Your task to perform on an android device: Search for vegetarian restaurants on Maps Image 0: 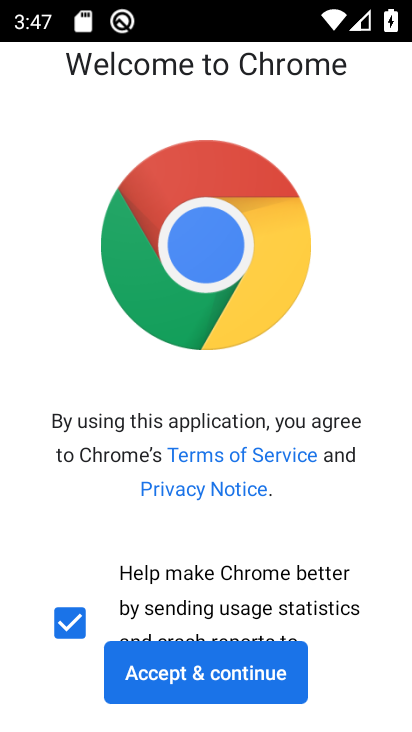
Step 0: click (200, 666)
Your task to perform on an android device: Search for vegetarian restaurants on Maps Image 1: 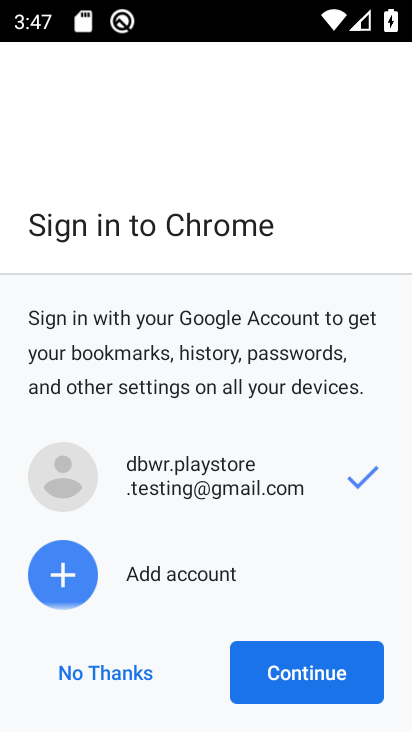
Step 1: click (355, 673)
Your task to perform on an android device: Search for vegetarian restaurants on Maps Image 2: 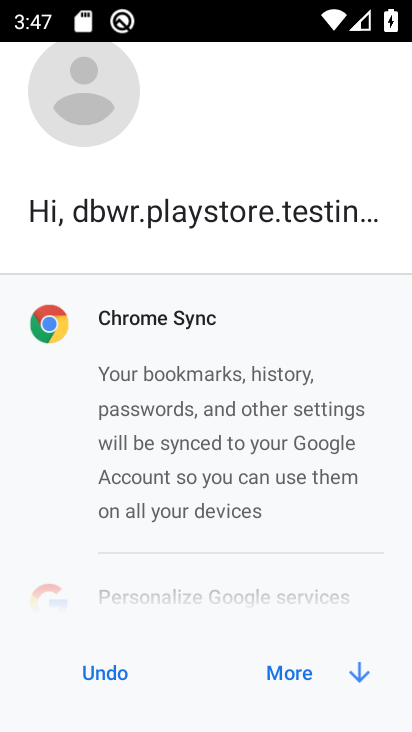
Step 2: click (286, 667)
Your task to perform on an android device: Search for vegetarian restaurants on Maps Image 3: 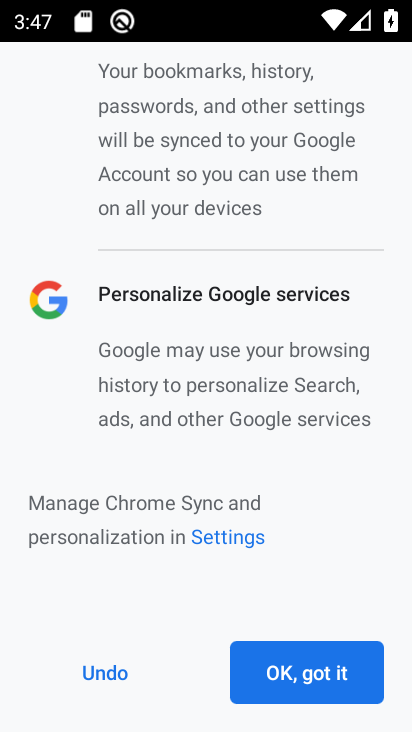
Step 3: click (295, 666)
Your task to perform on an android device: Search for vegetarian restaurants on Maps Image 4: 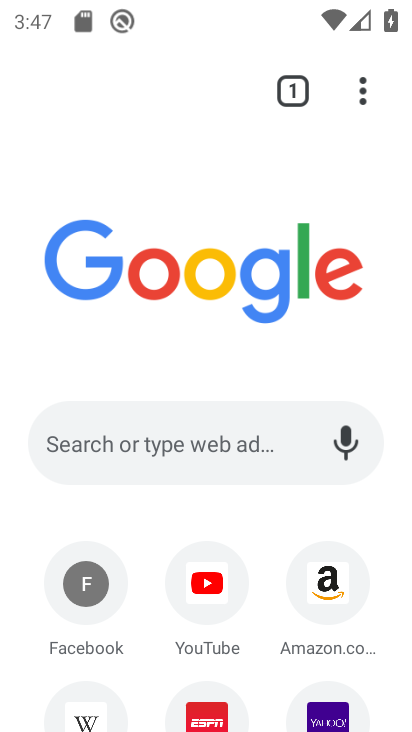
Step 4: click (358, 87)
Your task to perform on an android device: Search for vegetarian restaurants on Maps Image 5: 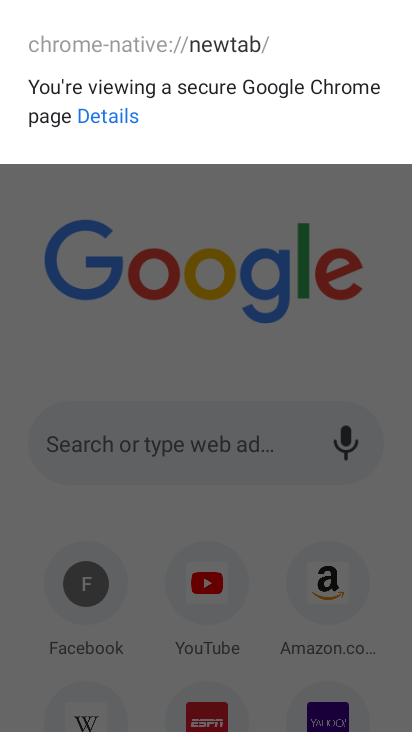
Step 5: click (208, 398)
Your task to perform on an android device: Search for vegetarian restaurants on Maps Image 6: 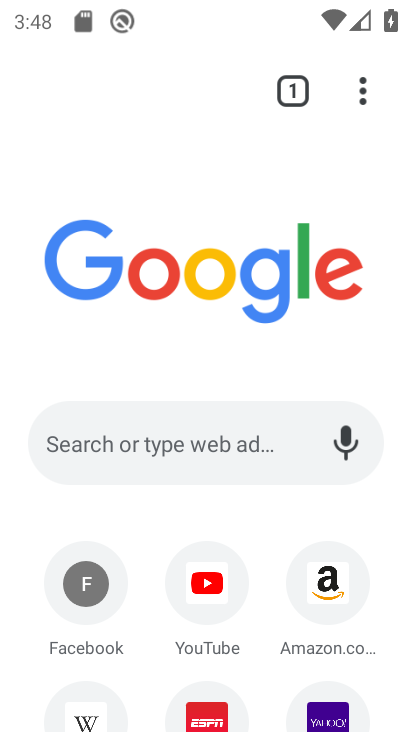
Step 6: press home button
Your task to perform on an android device: Search for vegetarian restaurants on Maps Image 7: 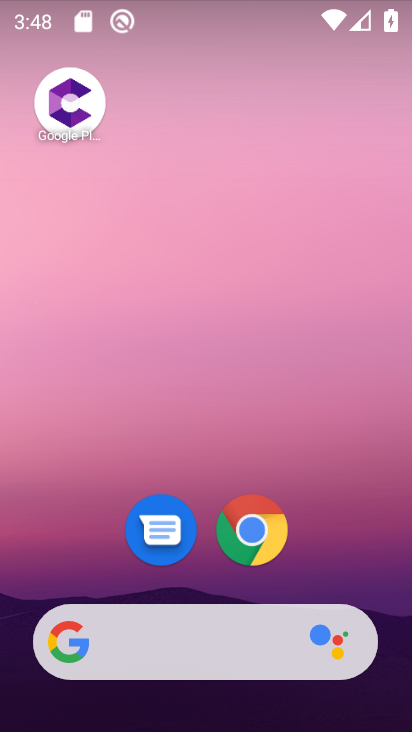
Step 7: drag from (215, 551) to (233, 32)
Your task to perform on an android device: Search for vegetarian restaurants on Maps Image 8: 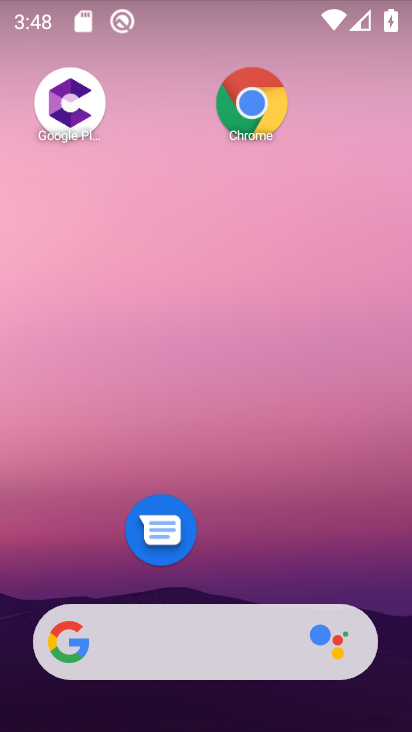
Step 8: drag from (294, 548) to (304, 112)
Your task to perform on an android device: Search for vegetarian restaurants on Maps Image 9: 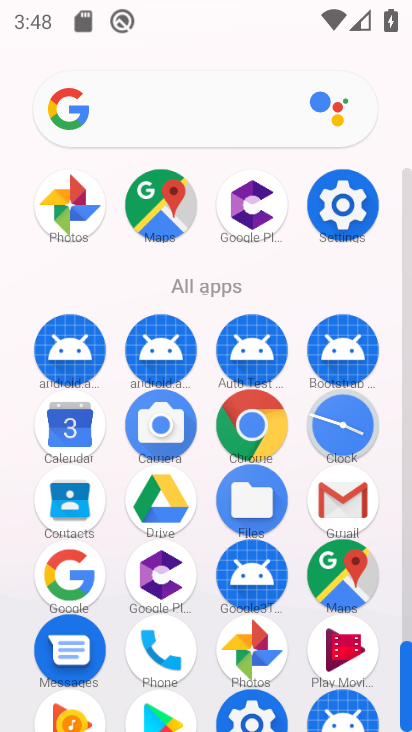
Step 9: click (160, 204)
Your task to perform on an android device: Search for vegetarian restaurants on Maps Image 10: 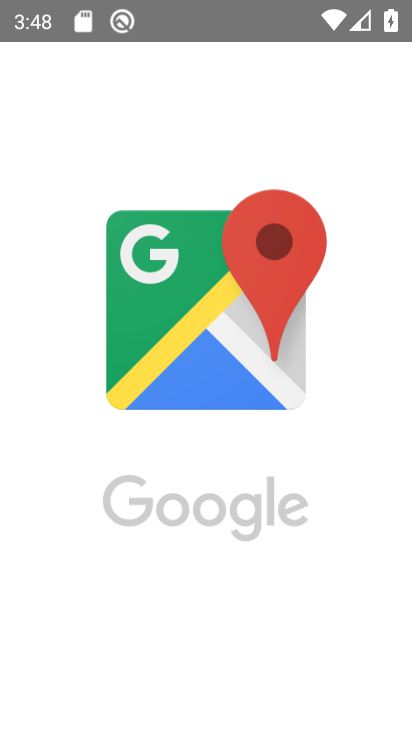
Step 10: task complete